Your task to perform on an android device: set the stopwatch Image 0: 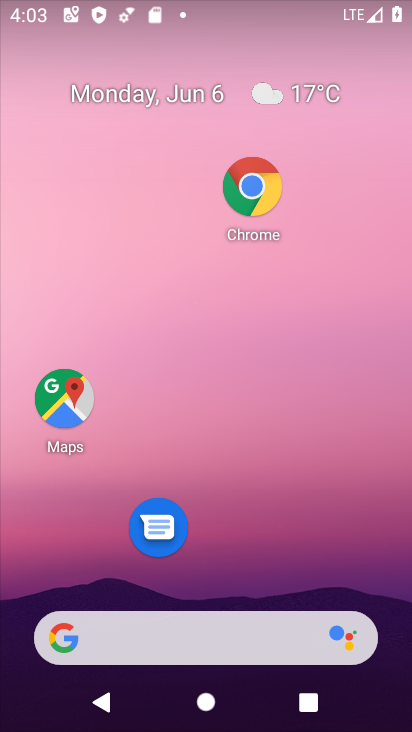
Step 0: drag from (221, 569) to (208, 175)
Your task to perform on an android device: set the stopwatch Image 1: 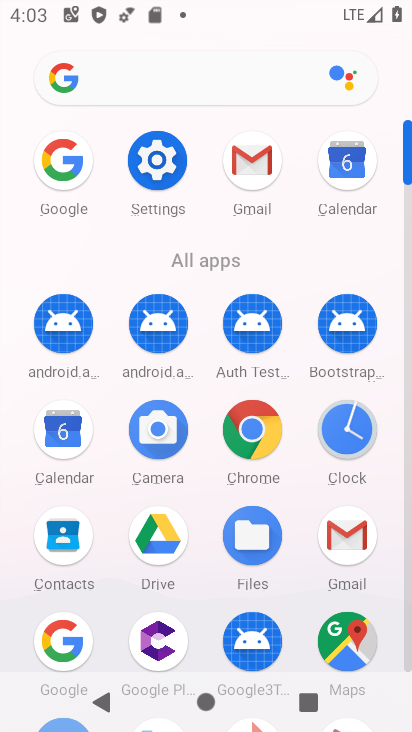
Step 1: click (353, 418)
Your task to perform on an android device: set the stopwatch Image 2: 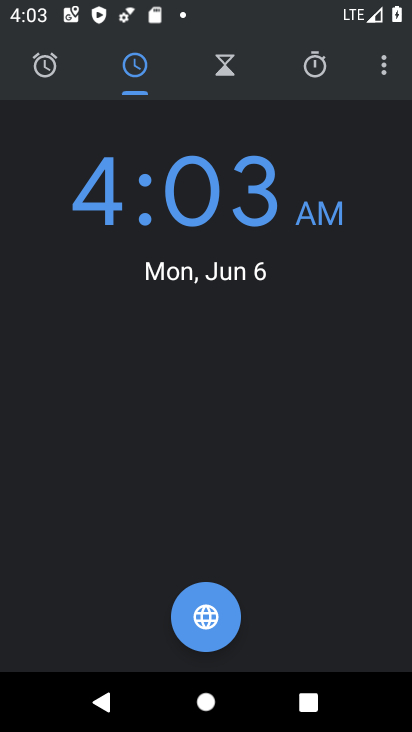
Step 2: click (301, 80)
Your task to perform on an android device: set the stopwatch Image 3: 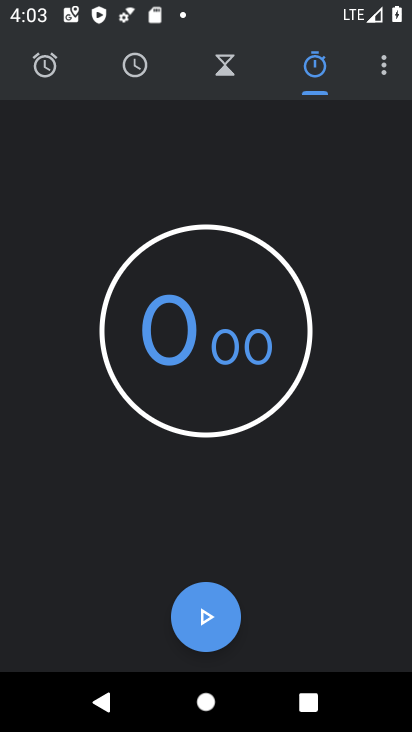
Step 3: click (212, 617)
Your task to perform on an android device: set the stopwatch Image 4: 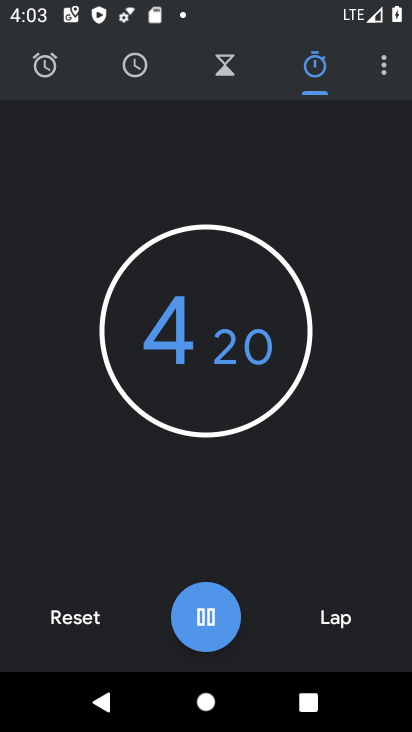
Step 4: click (212, 617)
Your task to perform on an android device: set the stopwatch Image 5: 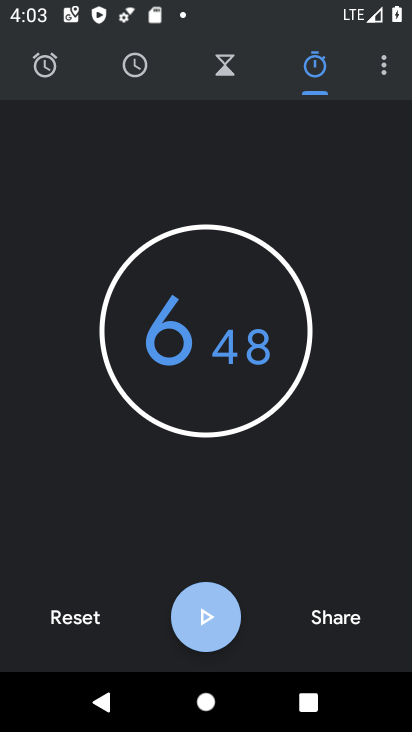
Step 5: task complete